Your task to perform on an android device: check storage Image 0: 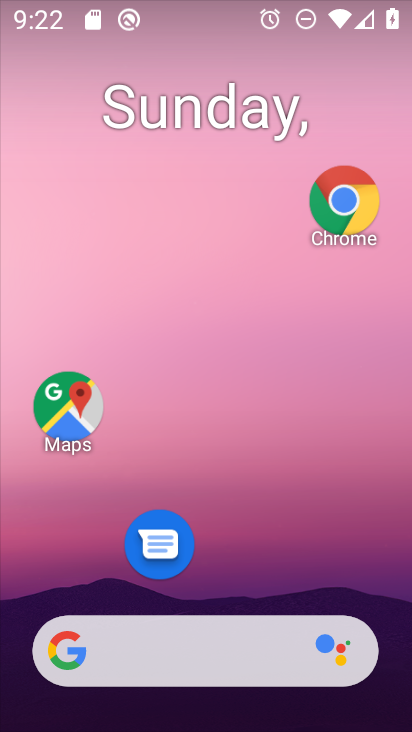
Step 0: drag from (270, 532) to (279, 74)
Your task to perform on an android device: check storage Image 1: 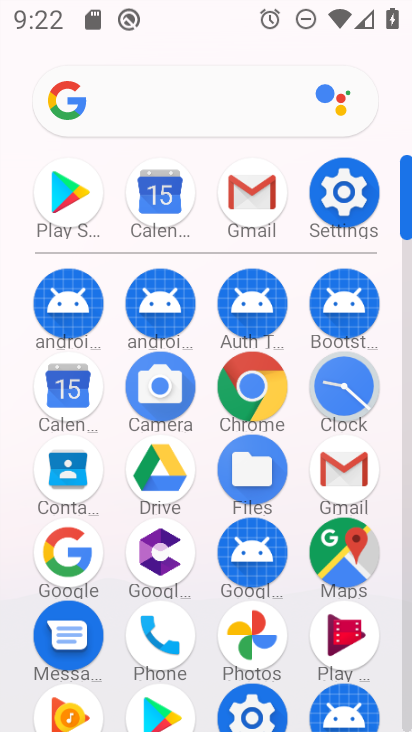
Step 1: click (344, 194)
Your task to perform on an android device: check storage Image 2: 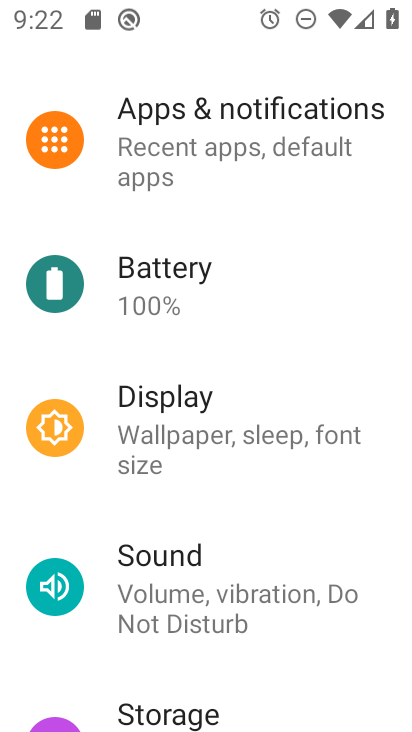
Step 2: drag from (231, 646) to (295, 153)
Your task to perform on an android device: check storage Image 3: 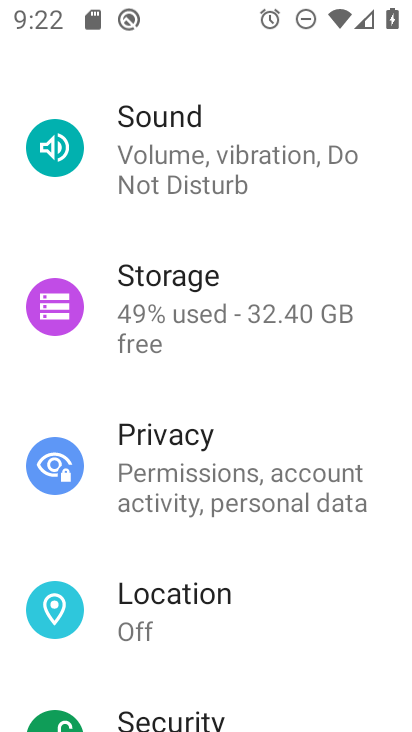
Step 3: click (223, 312)
Your task to perform on an android device: check storage Image 4: 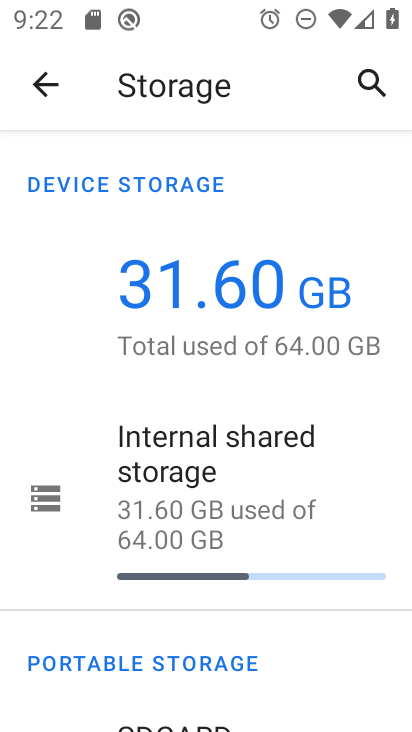
Step 4: task complete